Your task to perform on an android device: Open a new Chrome window Image 0: 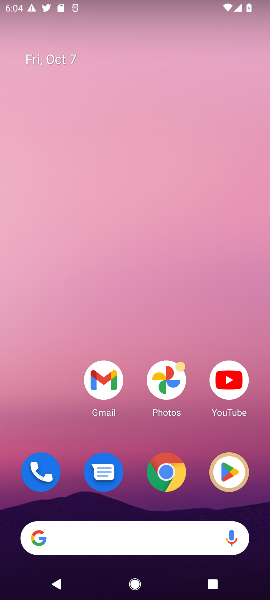
Step 0: click (162, 482)
Your task to perform on an android device: Open a new Chrome window Image 1: 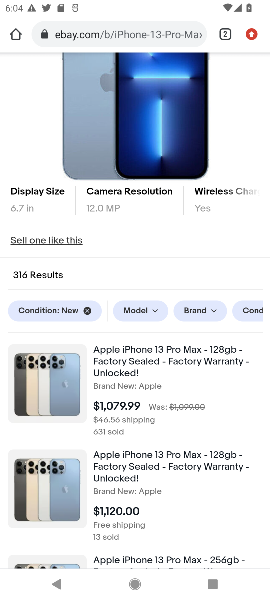
Step 1: click (223, 35)
Your task to perform on an android device: Open a new Chrome window Image 2: 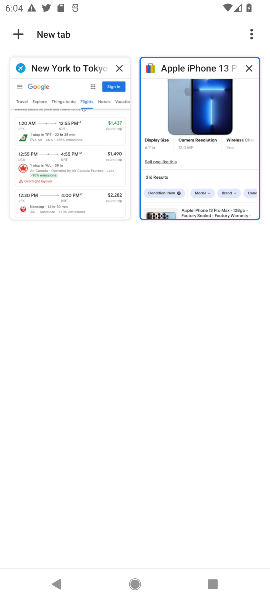
Step 2: click (20, 32)
Your task to perform on an android device: Open a new Chrome window Image 3: 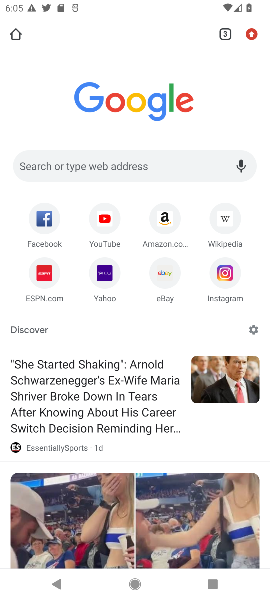
Step 3: click (251, 36)
Your task to perform on an android device: Open a new Chrome window Image 4: 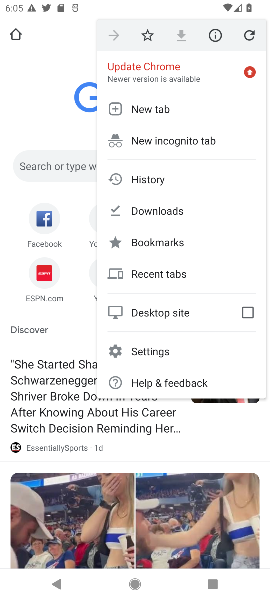
Step 4: click (251, 38)
Your task to perform on an android device: Open a new Chrome window Image 5: 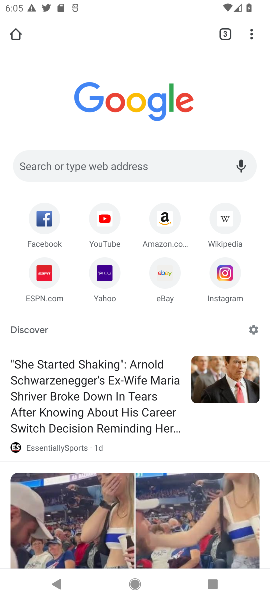
Step 5: click (251, 38)
Your task to perform on an android device: Open a new Chrome window Image 6: 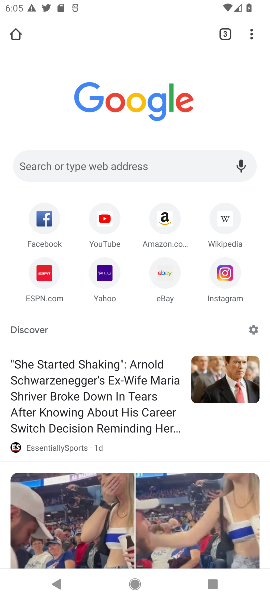
Step 6: task complete